Your task to perform on an android device: change the clock display to analog Image 0: 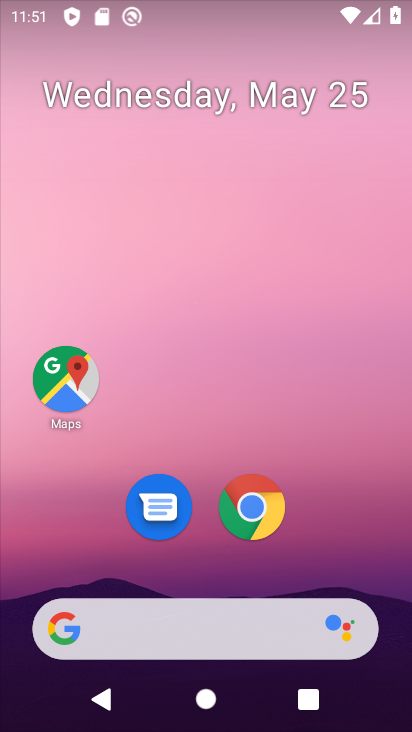
Step 0: drag from (220, 581) to (192, 147)
Your task to perform on an android device: change the clock display to analog Image 1: 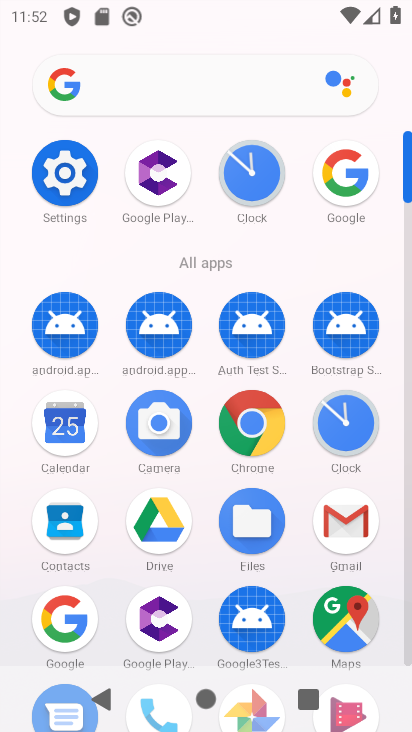
Step 1: click (334, 422)
Your task to perform on an android device: change the clock display to analog Image 2: 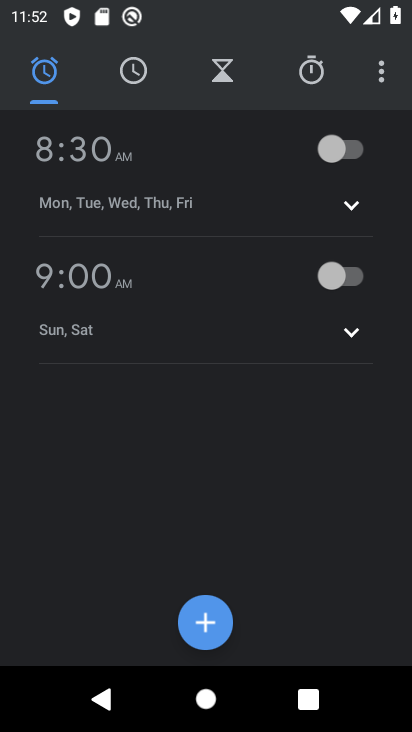
Step 2: click (377, 72)
Your task to perform on an android device: change the clock display to analog Image 3: 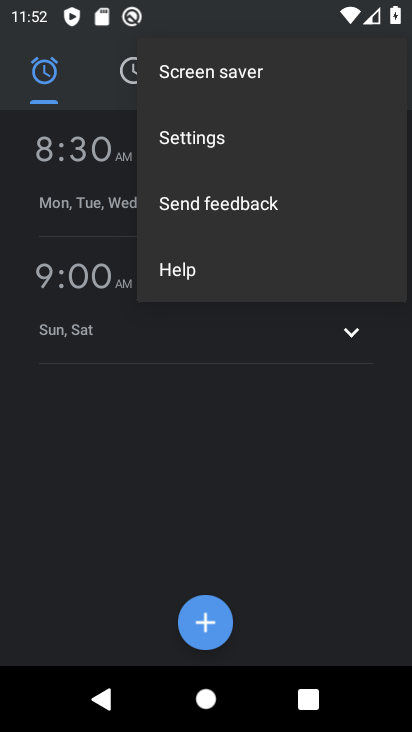
Step 3: click (180, 420)
Your task to perform on an android device: change the clock display to analog Image 4: 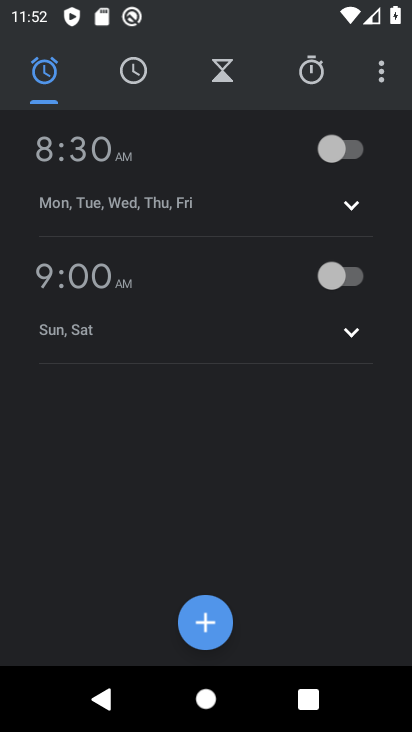
Step 4: click (379, 69)
Your task to perform on an android device: change the clock display to analog Image 5: 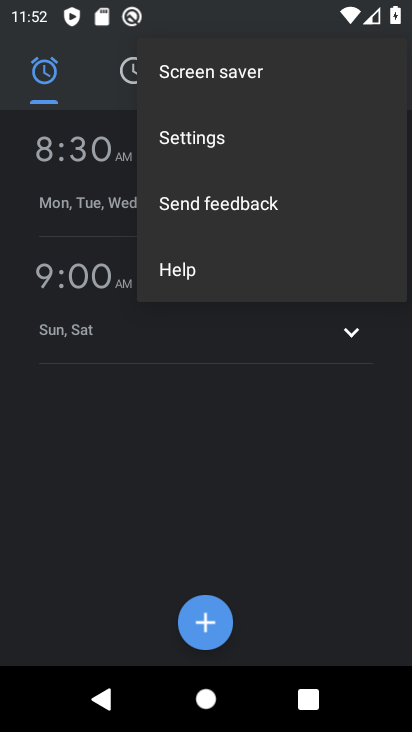
Step 5: click (246, 132)
Your task to perform on an android device: change the clock display to analog Image 6: 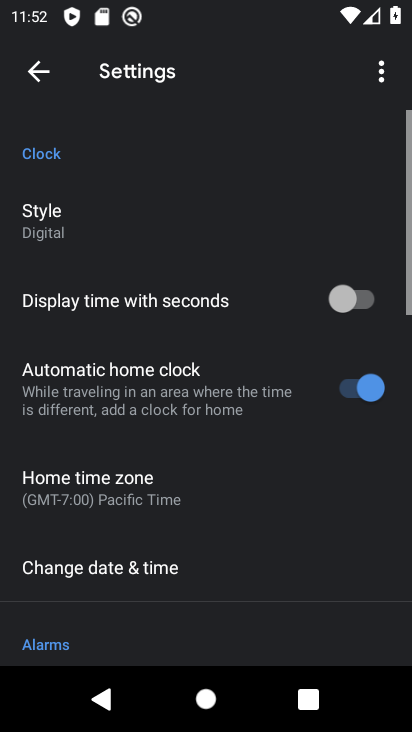
Step 6: click (115, 225)
Your task to perform on an android device: change the clock display to analog Image 7: 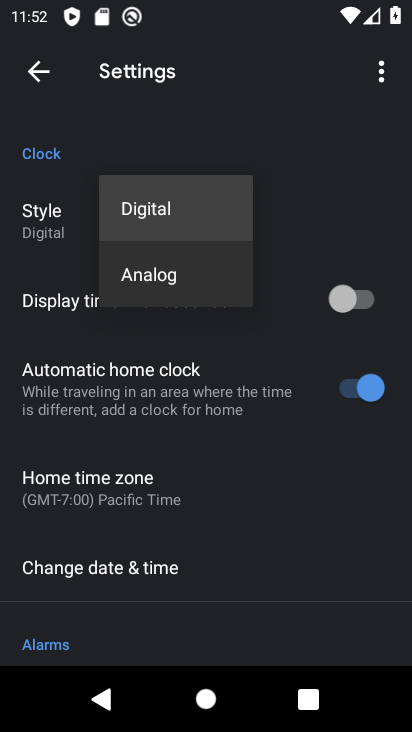
Step 7: click (158, 270)
Your task to perform on an android device: change the clock display to analog Image 8: 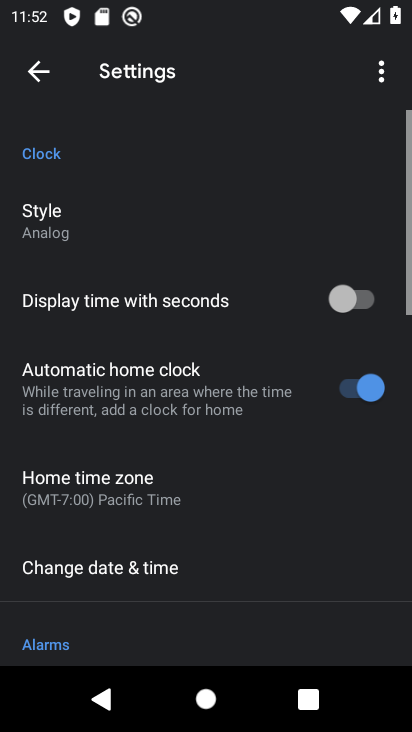
Step 8: task complete